Your task to perform on an android device: Do I have any events today? Image 0: 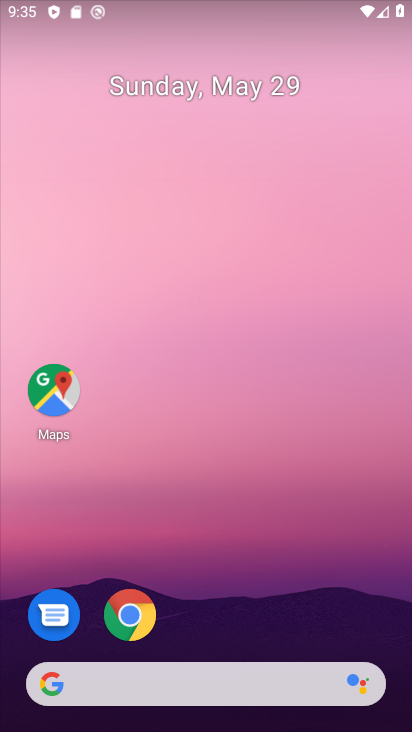
Step 0: drag from (220, 659) to (206, 7)
Your task to perform on an android device: Do I have any events today? Image 1: 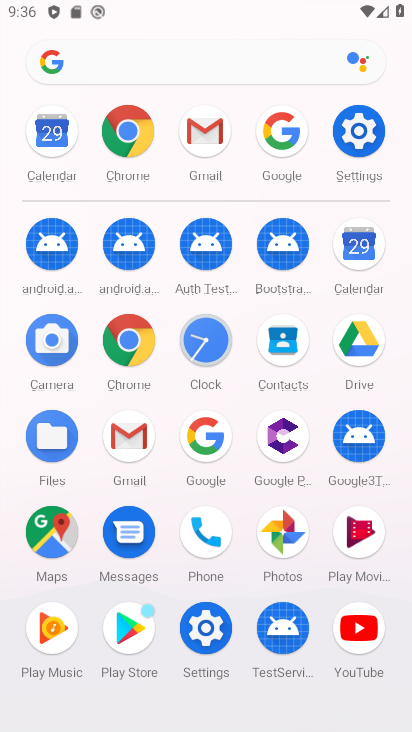
Step 1: click (341, 261)
Your task to perform on an android device: Do I have any events today? Image 2: 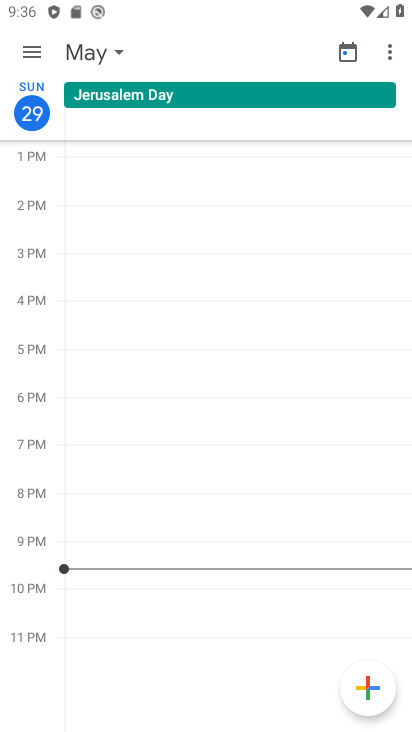
Step 2: click (22, 110)
Your task to perform on an android device: Do I have any events today? Image 3: 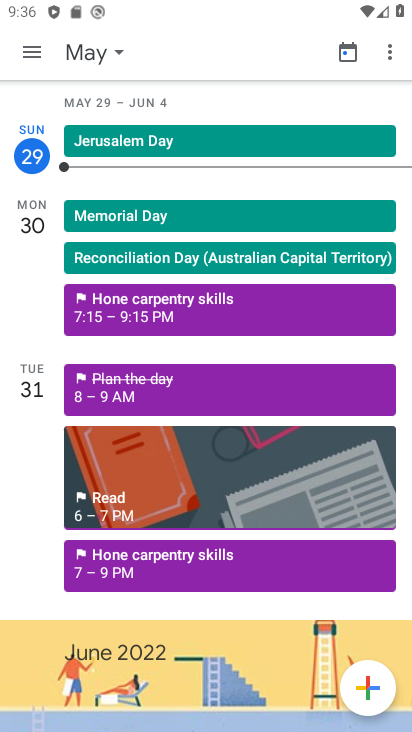
Step 3: task complete